Your task to perform on an android device: open app "Messenger Lite" Image 0: 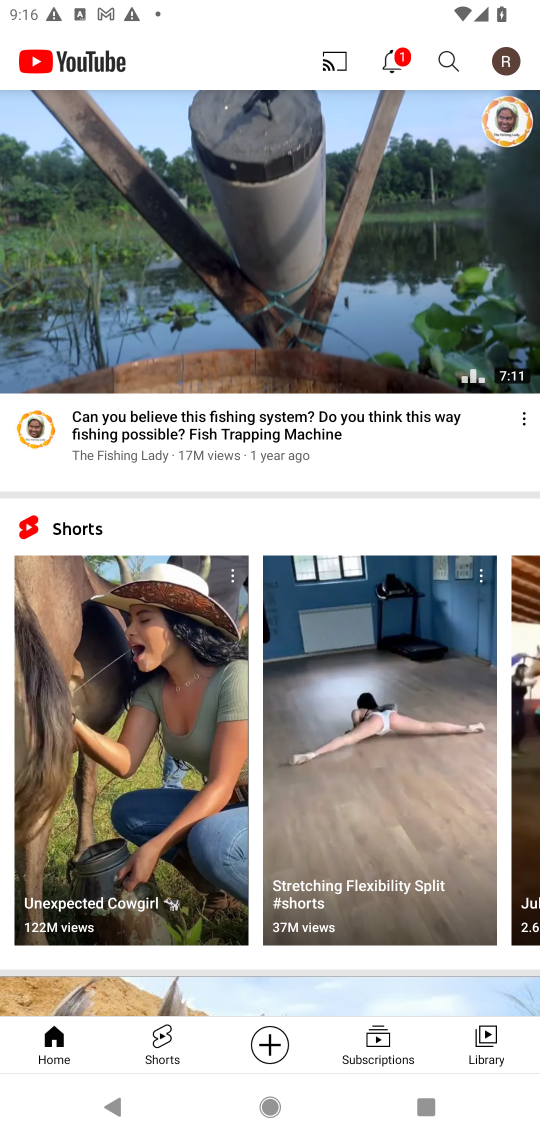
Step 0: press home button
Your task to perform on an android device: open app "Messenger Lite" Image 1: 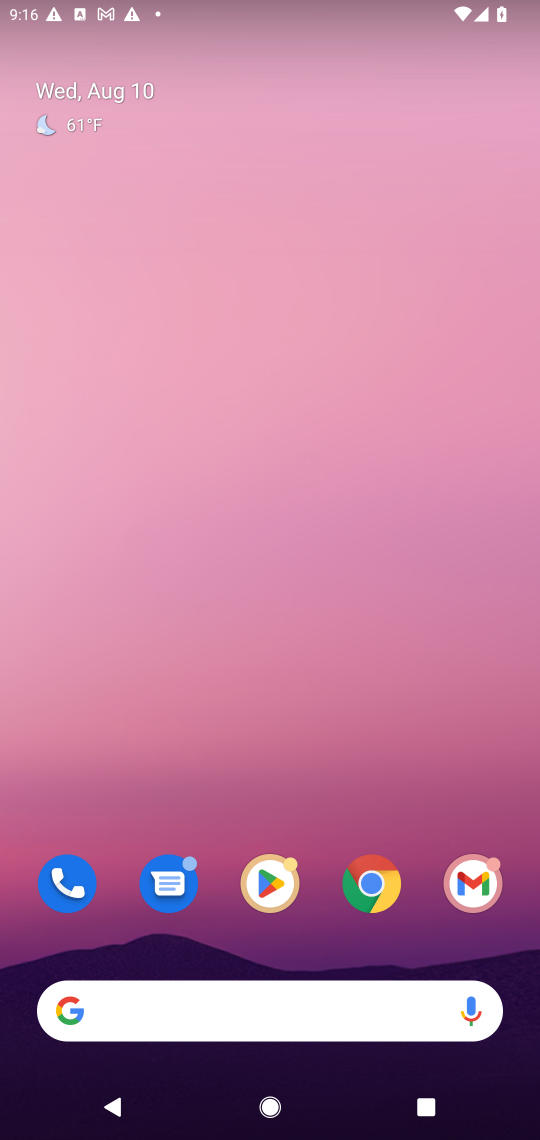
Step 1: click (266, 891)
Your task to perform on an android device: open app "Messenger Lite" Image 2: 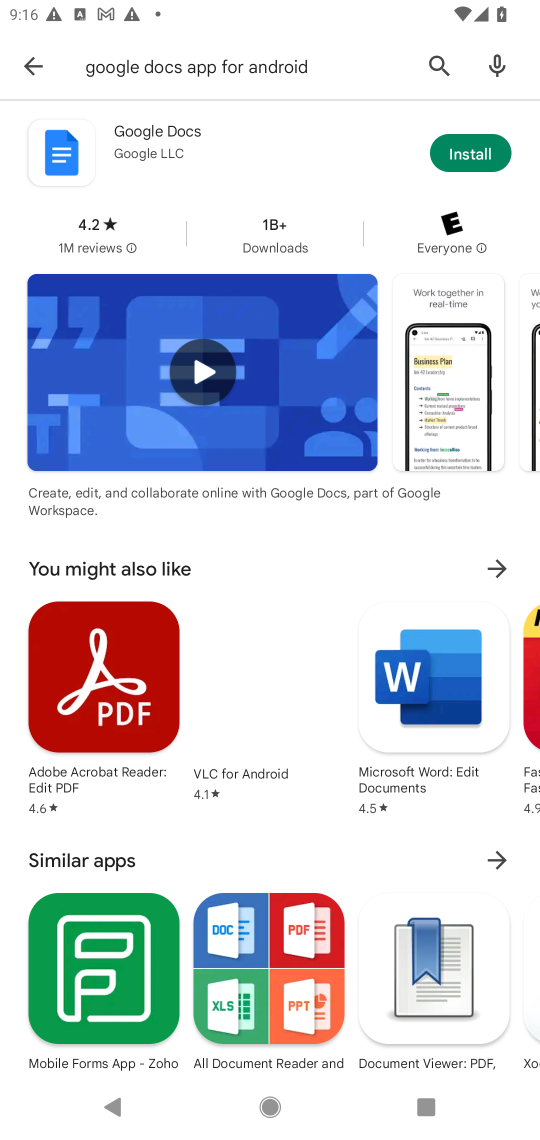
Step 2: click (425, 67)
Your task to perform on an android device: open app "Messenger Lite" Image 3: 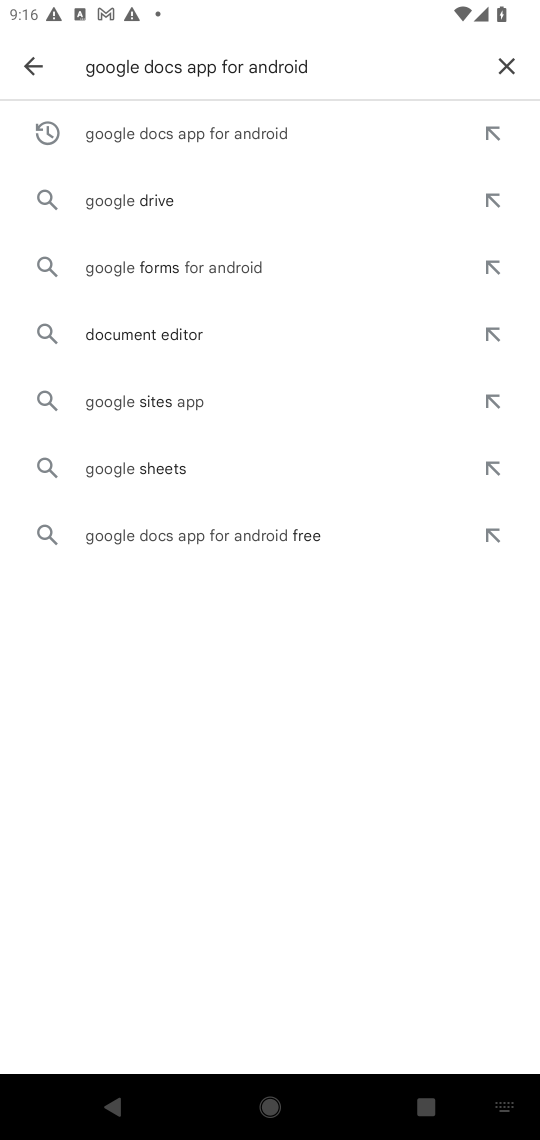
Step 3: click (500, 62)
Your task to perform on an android device: open app "Messenger Lite" Image 4: 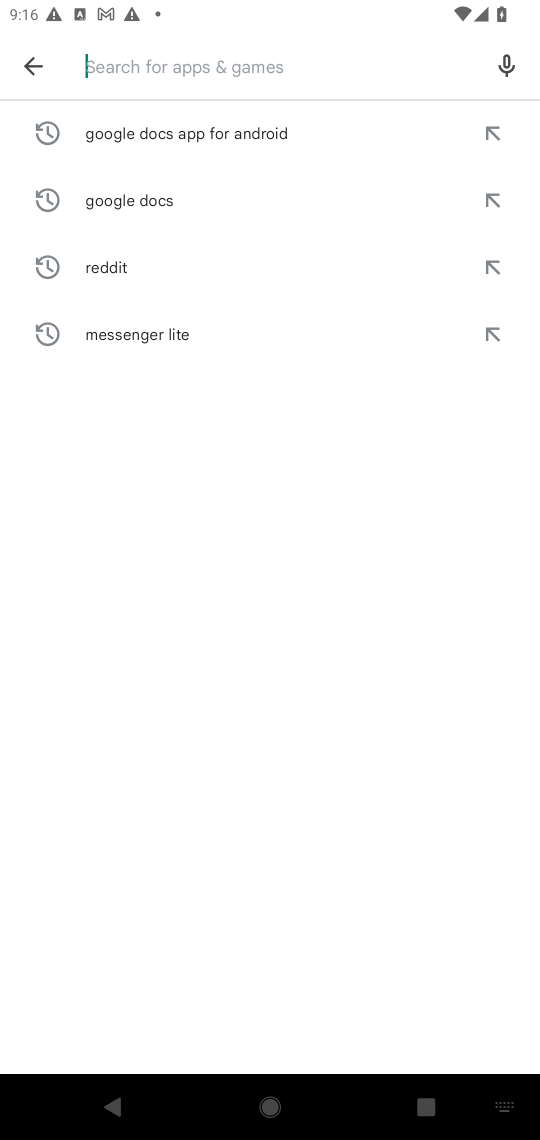
Step 4: type "Messenger Lite"
Your task to perform on an android device: open app "Messenger Lite" Image 5: 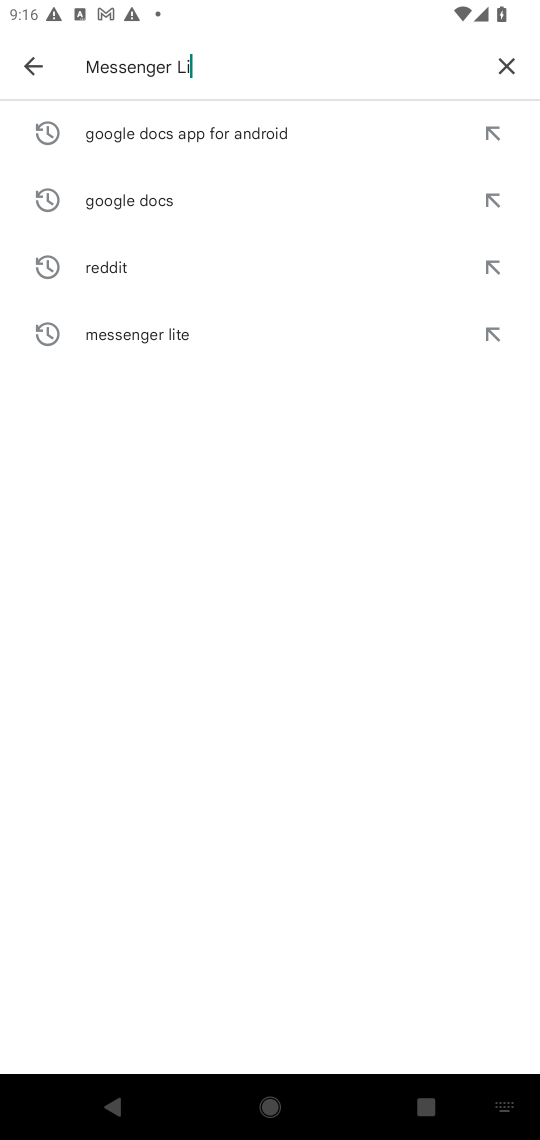
Step 5: type ""
Your task to perform on an android device: open app "Messenger Lite" Image 6: 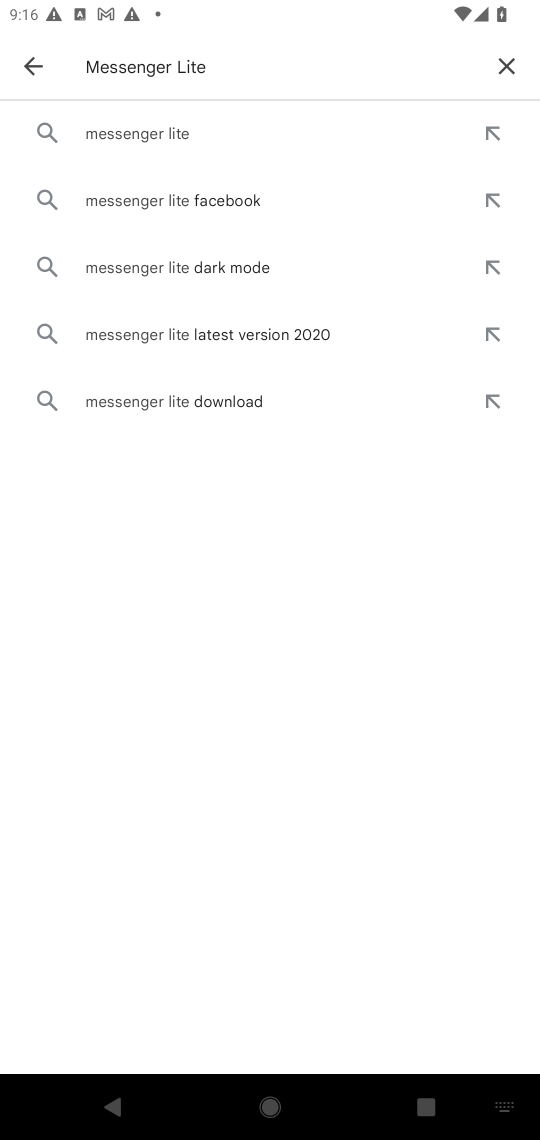
Step 6: click (144, 139)
Your task to perform on an android device: open app "Messenger Lite" Image 7: 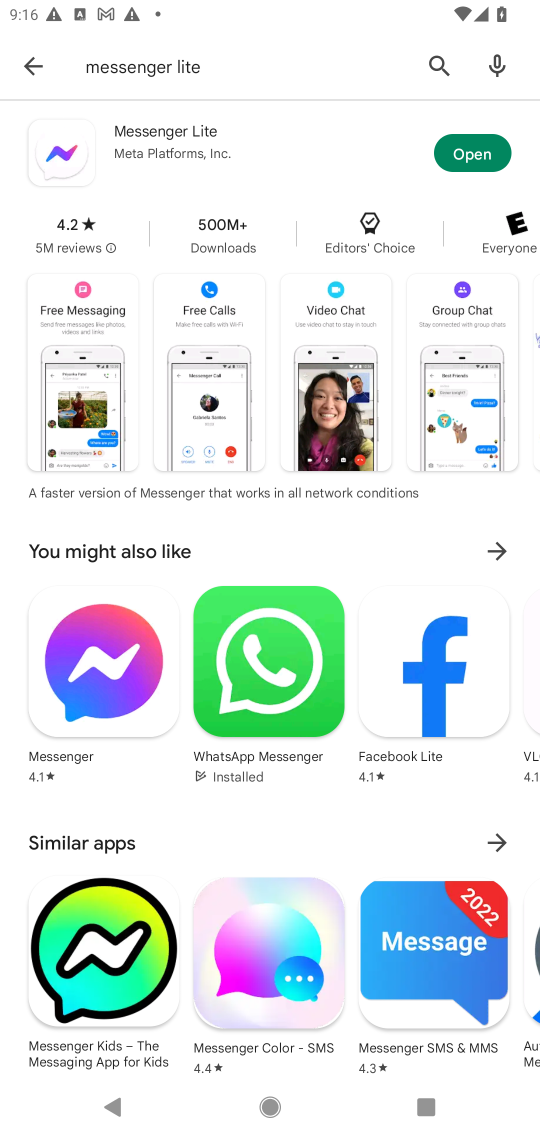
Step 7: click (479, 139)
Your task to perform on an android device: open app "Messenger Lite" Image 8: 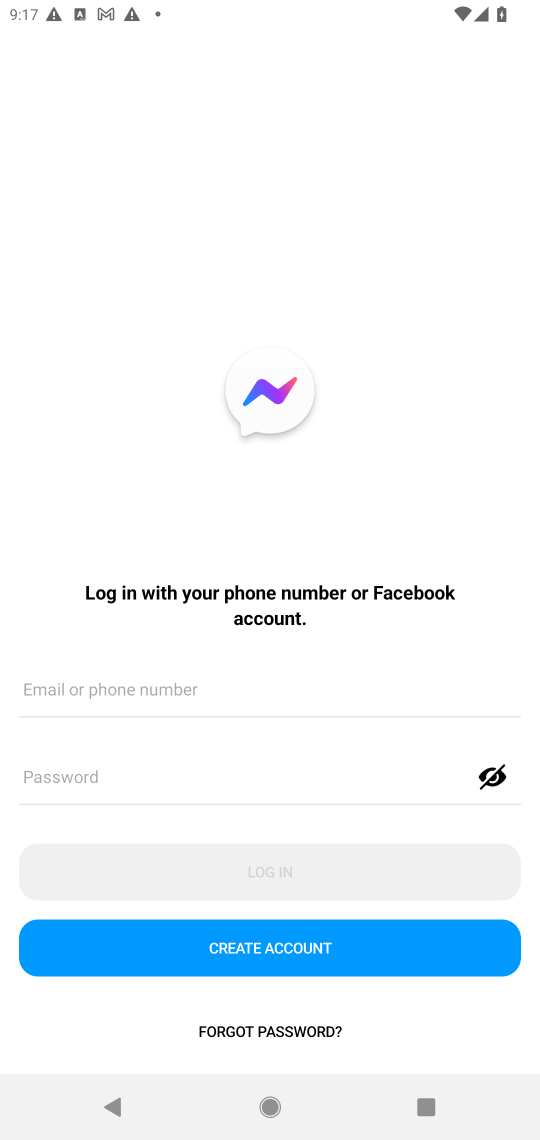
Step 8: task complete